Your task to perform on an android device: change text size in settings app Image 0: 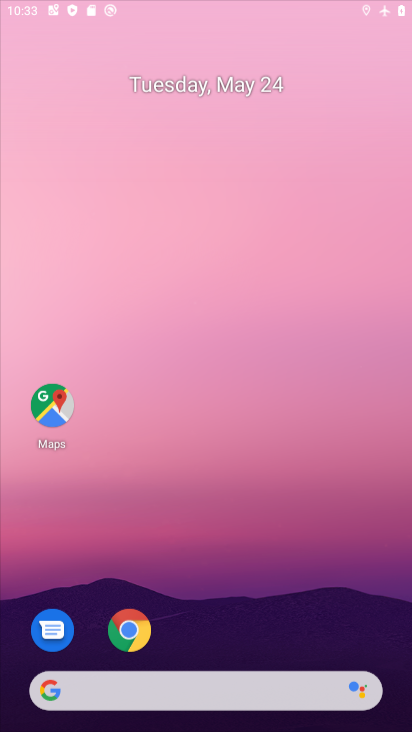
Step 0: press home button
Your task to perform on an android device: change text size in settings app Image 1: 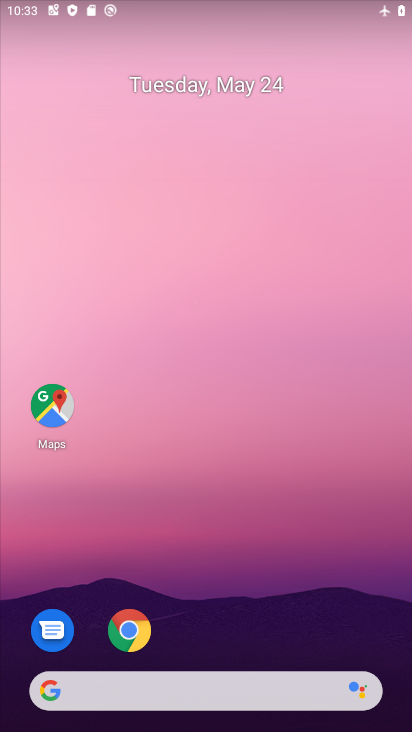
Step 1: drag from (204, 648) to (235, 170)
Your task to perform on an android device: change text size in settings app Image 2: 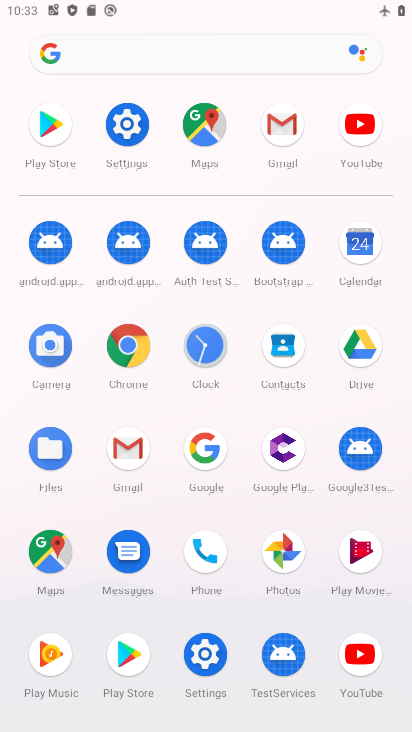
Step 2: click (124, 117)
Your task to perform on an android device: change text size in settings app Image 3: 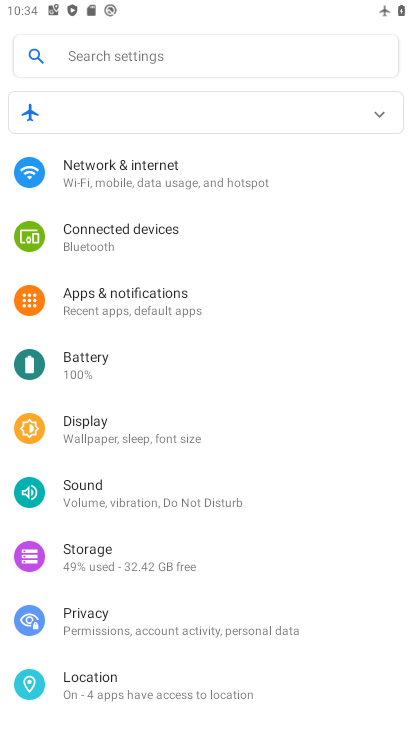
Step 3: click (122, 425)
Your task to perform on an android device: change text size in settings app Image 4: 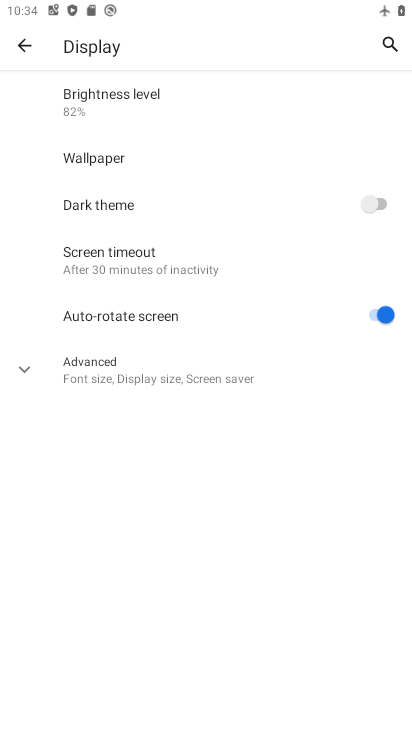
Step 4: click (22, 357)
Your task to perform on an android device: change text size in settings app Image 5: 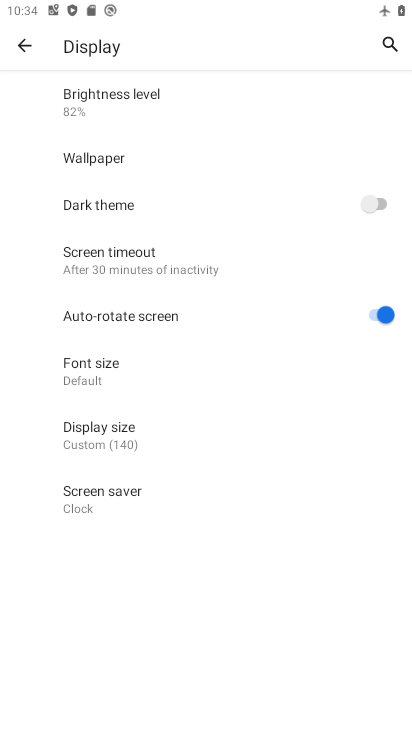
Step 5: click (124, 369)
Your task to perform on an android device: change text size in settings app Image 6: 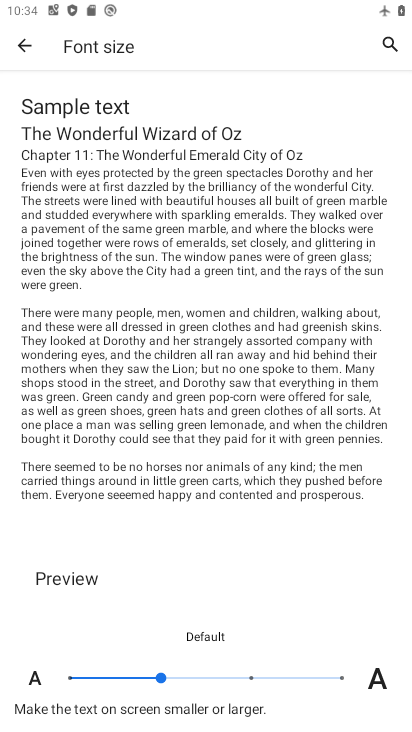
Step 6: click (70, 669)
Your task to perform on an android device: change text size in settings app Image 7: 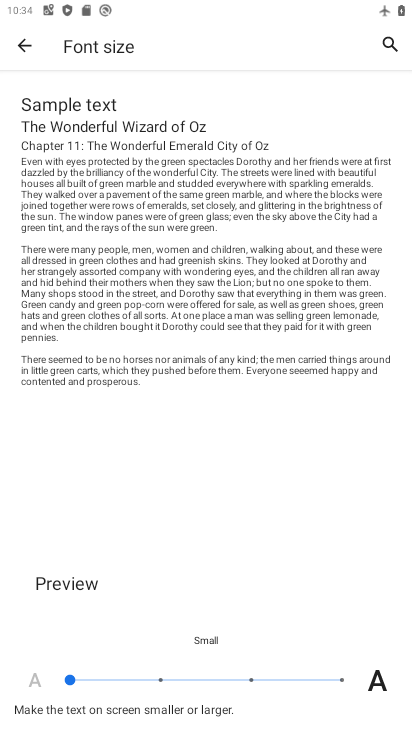
Step 7: task complete